Your task to perform on an android device: choose inbox layout in the gmail app Image 0: 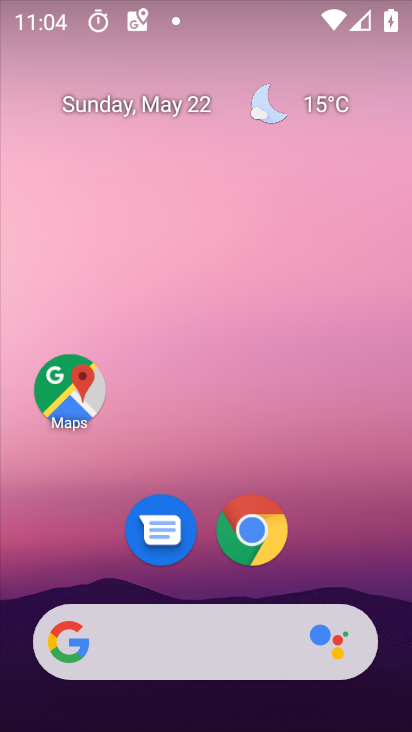
Step 0: drag from (394, 672) to (404, 130)
Your task to perform on an android device: choose inbox layout in the gmail app Image 1: 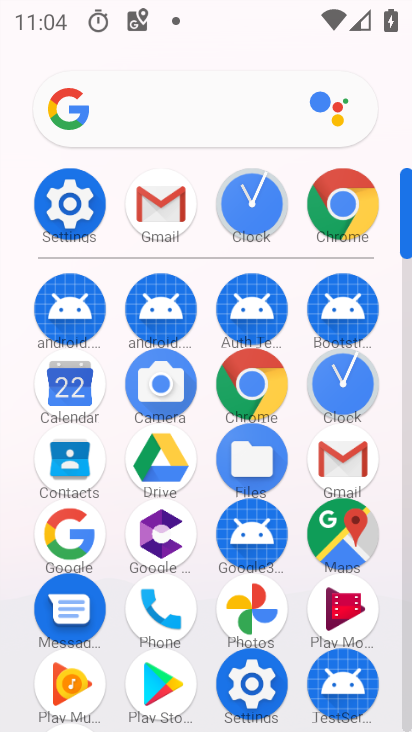
Step 1: click (350, 452)
Your task to perform on an android device: choose inbox layout in the gmail app Image 2: 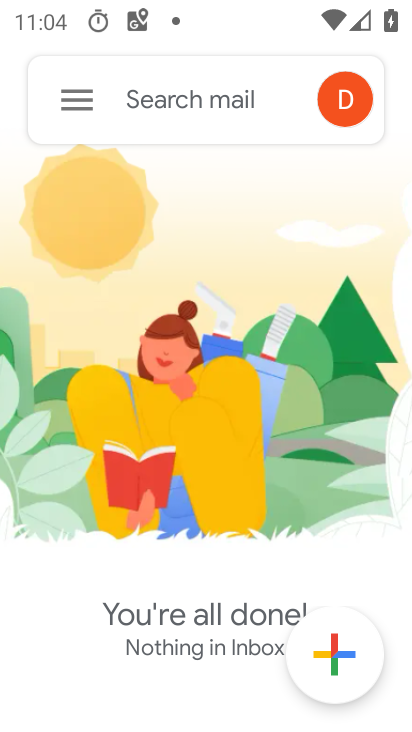
Step 2: click (78, 100)
Your task to perform on an android device: choose inbox layout in the gmail app Image 3: 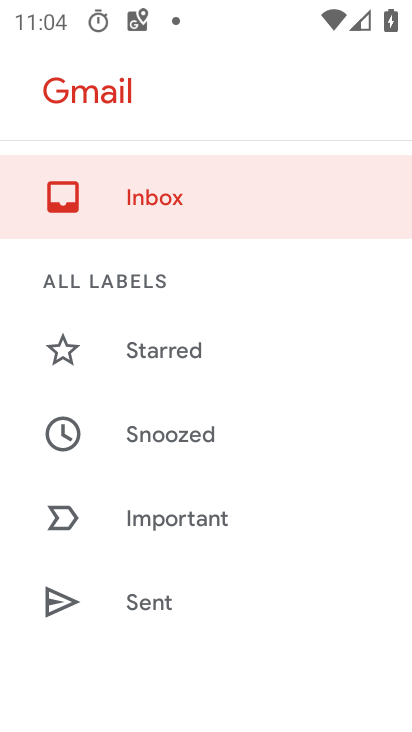
Step 3: click (157, 191)
Your task to perform on an android device: choose inbox layout in the gmail app Image 4: 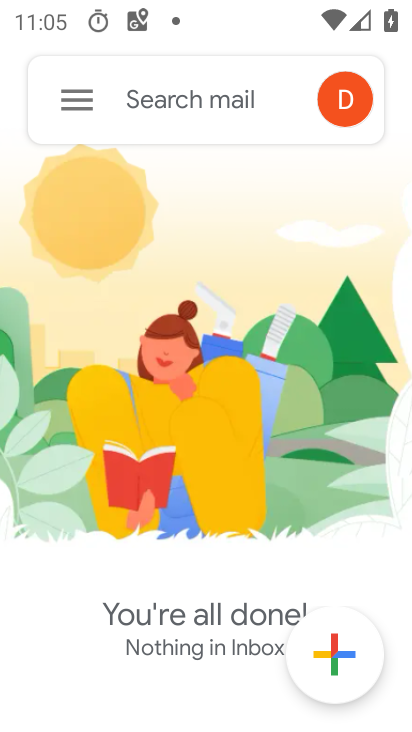
Step 4: task complete